Your task to perform on an android device: Open CNN.com Image 0: 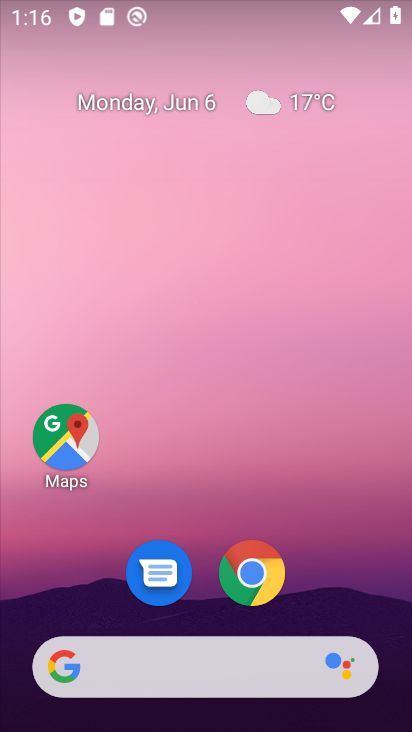
Step 0: drag from (381, 606) to (366, 192)
Your task to perform on an android device: Open CNN.com Image 1: 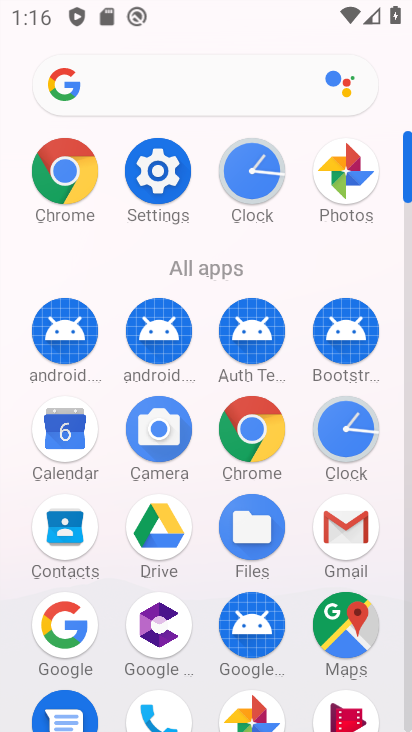
Step 1: click (246, 442)
Your task to perform on an android device: Open CNN.com Image 2: 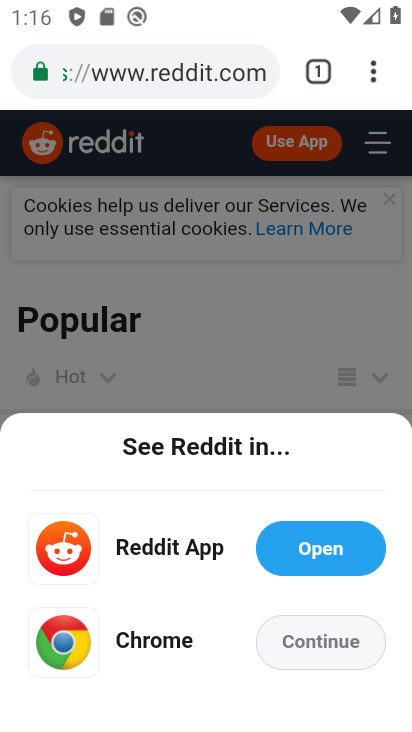
Step 2: click (189, 58)
Your task to perform on an android device: Open CNN.com Image 3: 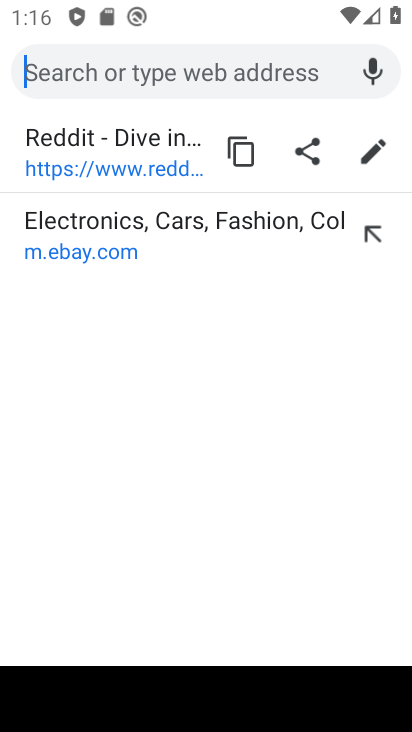
Step 3: type "cnn.com"
Your task to perform on an android device: Open CNN.com Image 4: 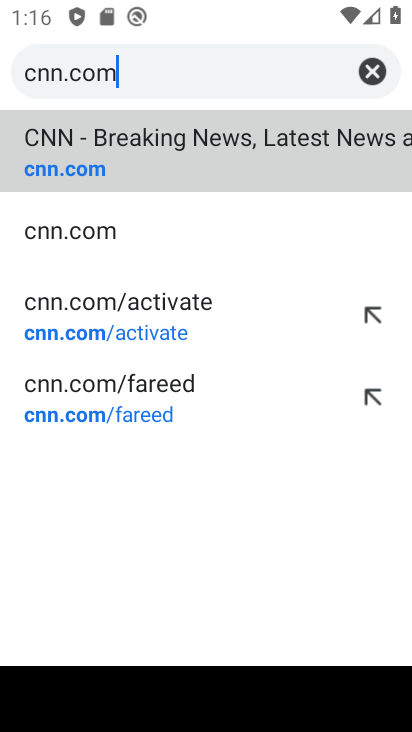
Step 4: click (158, 162)
Your task to perform on an android device: Open CNN.com Image 5: 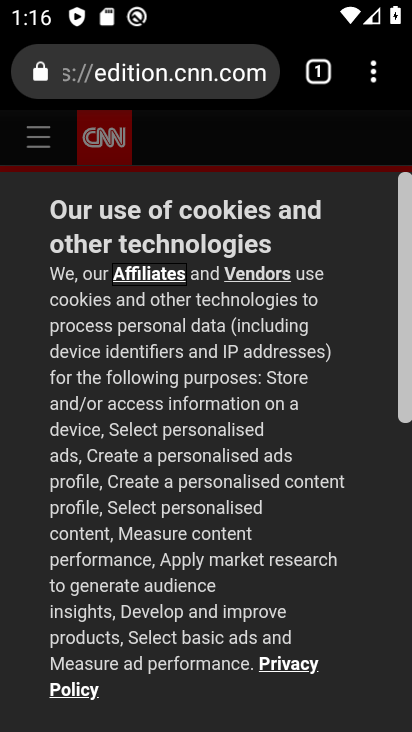
Step 5: task complete